Your task to perform on an android device: open sync settings in chrome Image 0: 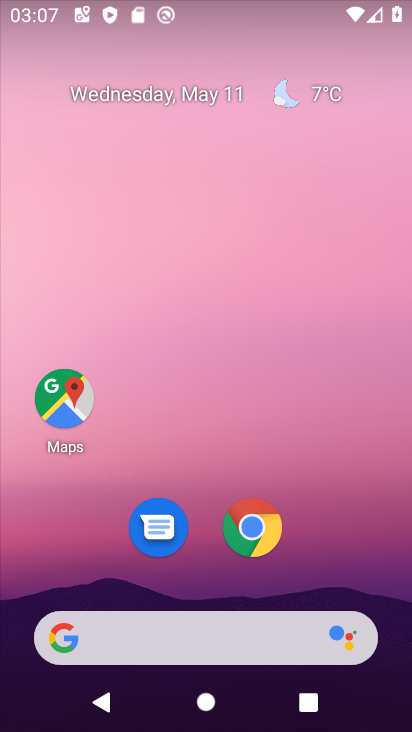
Step 0: click (254, 523)
Your task to perform on an android device: open sync settings in chrome Image 1: 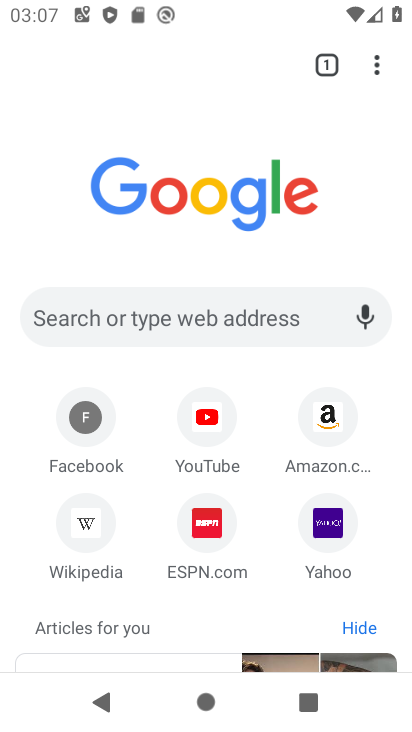
Step 1: click (377, 67)
Your task to perform on an android device: open sync settings in chrome Image 2: 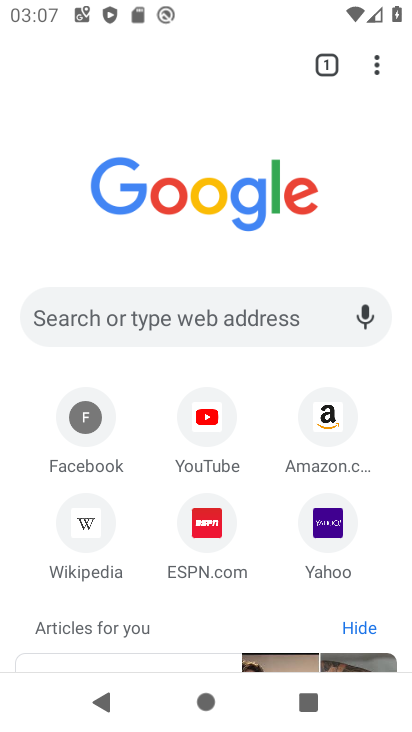
Step 2: click (377, 67)
Your task to perform on an android device: open sync settings in chrome Image 3: 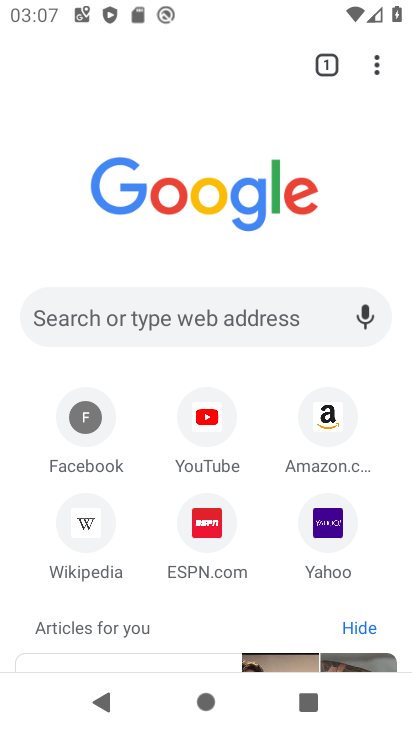
Step 3: click (377, 67)
Your task to perform on an android device: open sync settings in chrome Image 4: 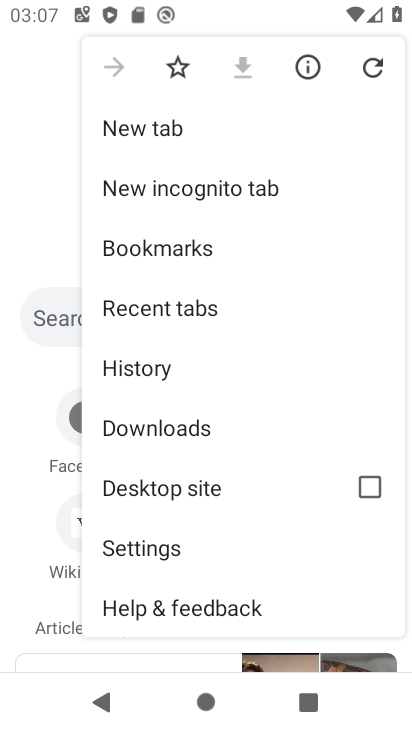
Step 4: click (142, 551)
Your task to perform on an android device: open sync settings in chrome Image 5: 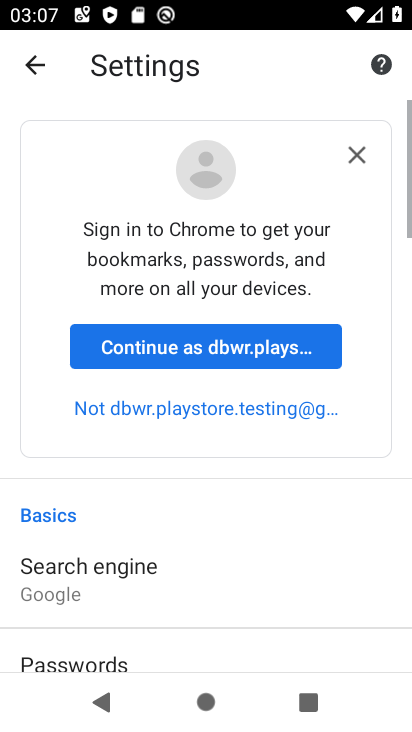
Step 5: click (153, 345)
Your task to perform on an android device: open sync settings in chrome Image 6: 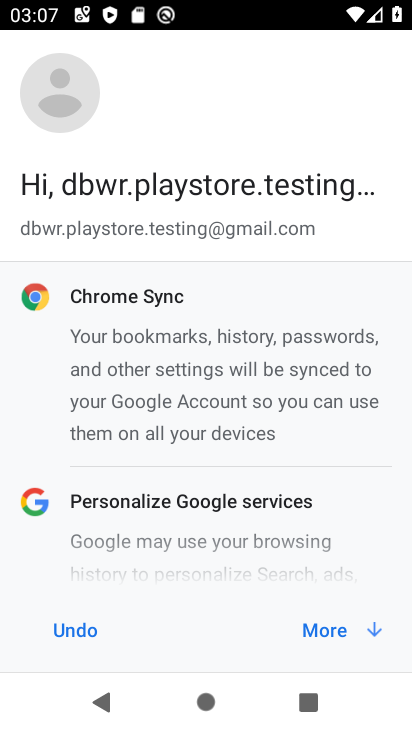
Step 6: click (314, 635)
Your task to perform on an android device: open sync settings in chrome Image 7: 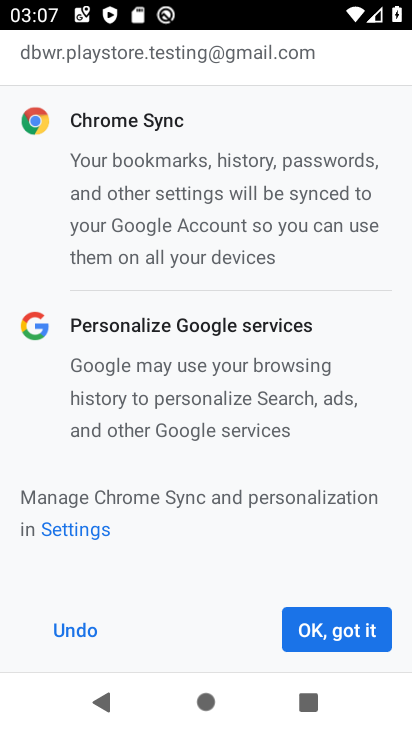
Step 7: click (314, 635)
Your task to perform on an android device: open sync settings in chrome Image 8: 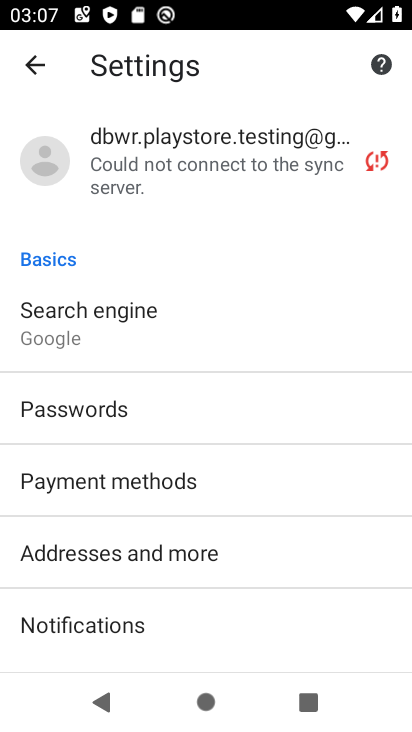
Step 8: click (140, 172)
Your task to perform on an android device: open sync settings in chrome Image 9: 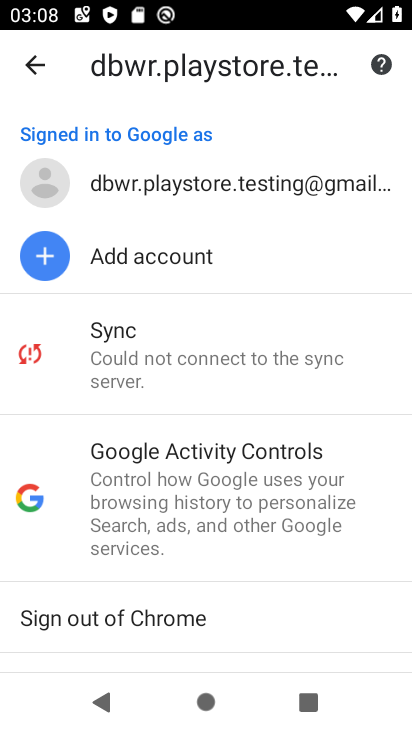
Step 9: click (125, 364)
Your task to perform on an android device: open sync settings in chrome Image 10: 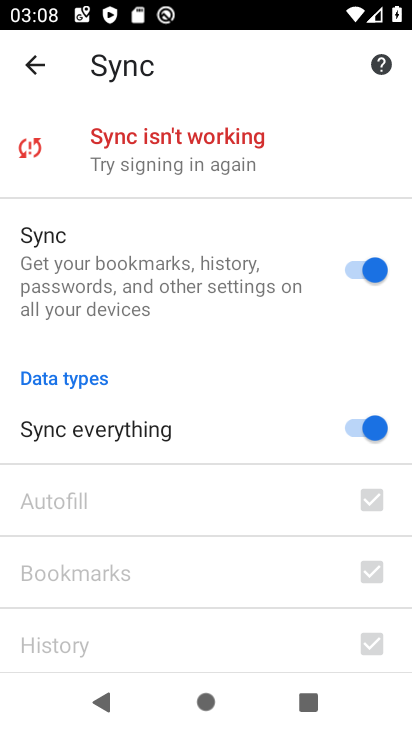
Step 10: task complete